Your task to perform on an android device: turn off location Image 0: 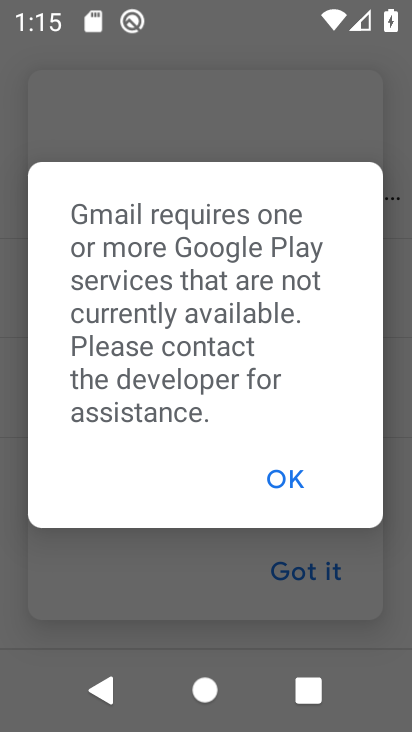
Step 0: press home button
Your task to perform on an android device: turn off location Image 1: 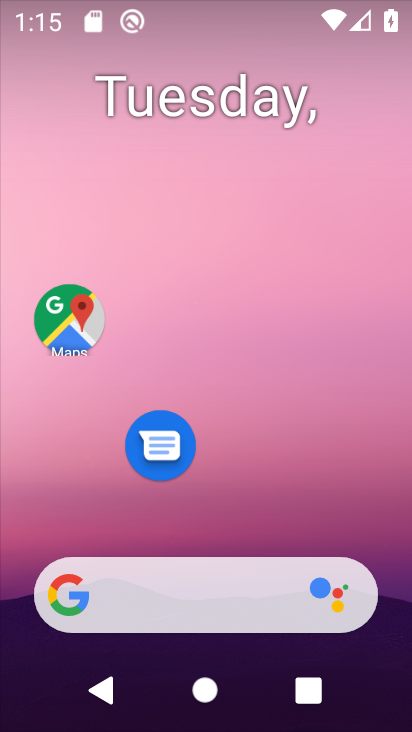
Step 1: drag from (281, 456) to (237, 118)
Your task to perform on an android device: turn off location Image 2: 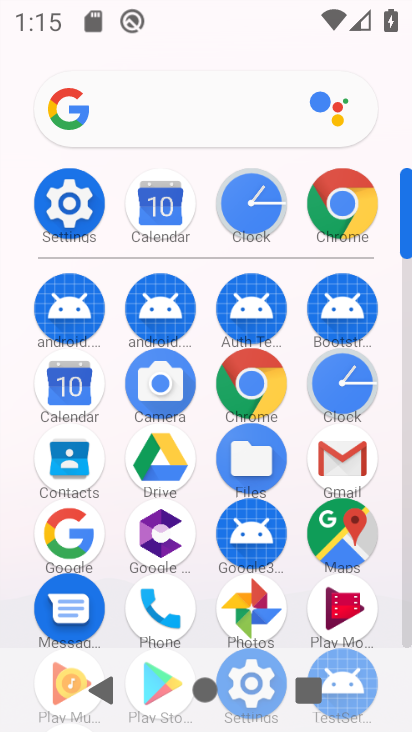
Step 2: click (78, 210)
Your task to perform on an android device: turn off location Image 3: 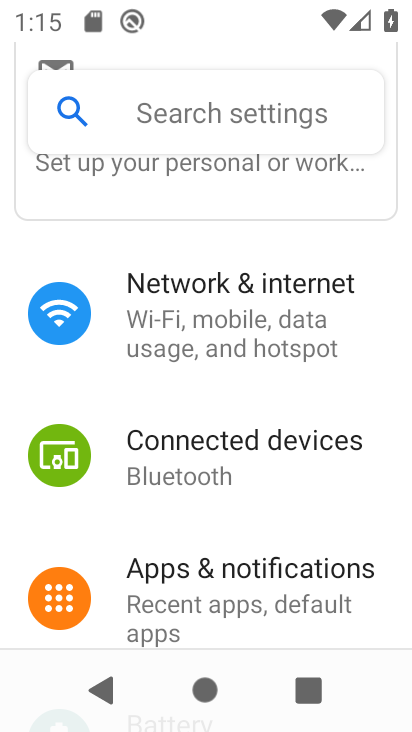
Step 3: drag from (217, 490) to (156, 127)
Your task to perform on an android device: turn off location Image 4: 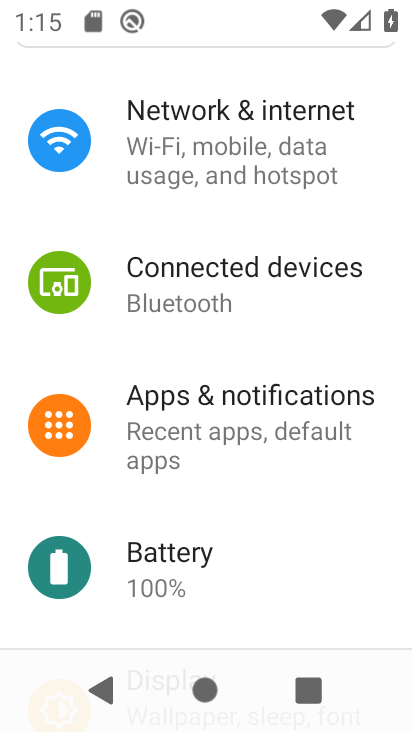
Step 4: drag from (156, 477) to (150, 174)
Your task to perform on an android device: turn off location Image 5: 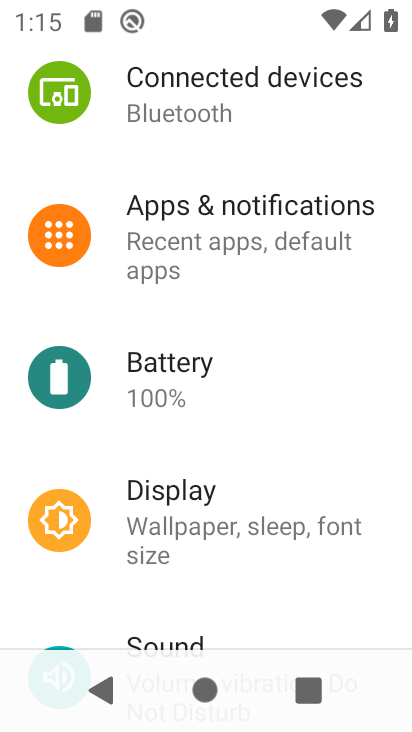
Step 5: drag from (181, 452) to (116, 151)
Your task to perform on an android device: turn off location Image 6: 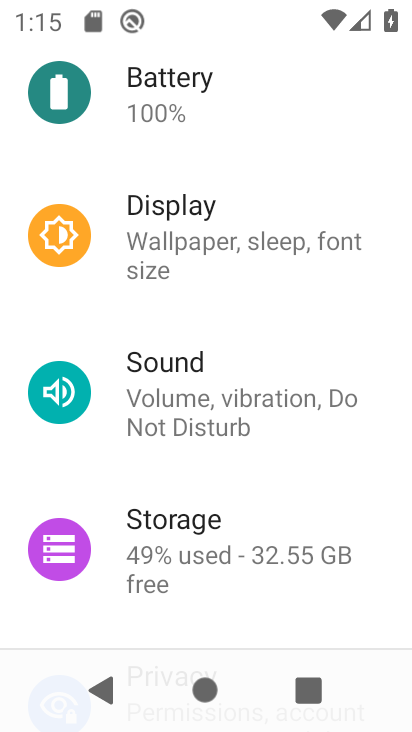
Step 6: drag from (181, 470) to (172, 63)
Your task to perform on an android device: turn off location Image 7: 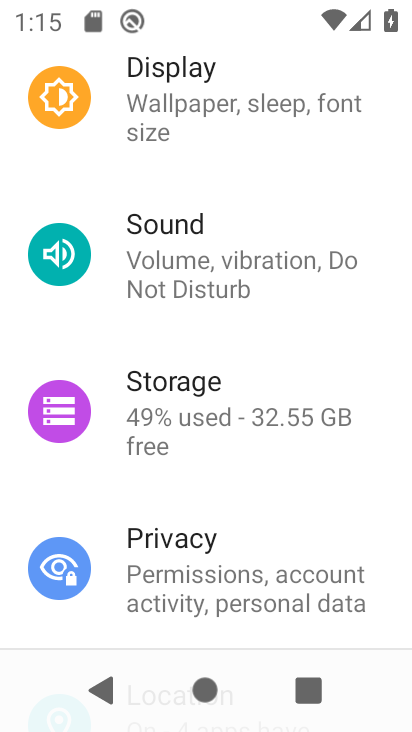
Step 7: drag from (178, 435) to (156, 118)
Your task to perform on an android device: turn off location Image 8: 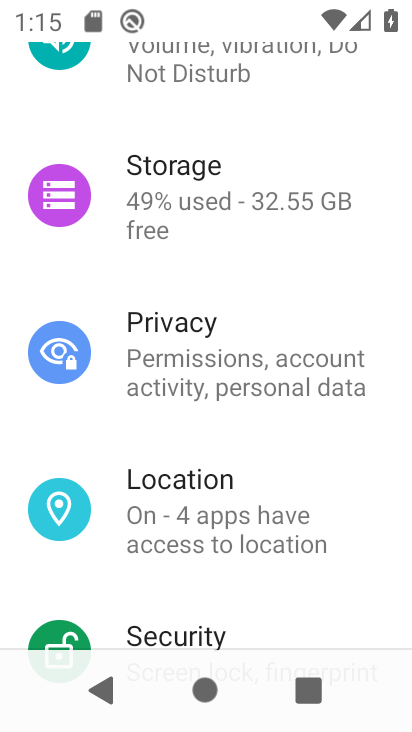
Step 8: click (185, 497)
Your task to perform on an android device: turn off location Image 9: 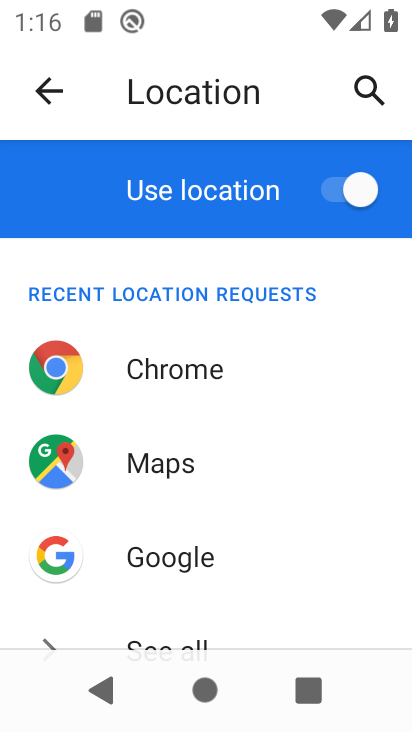
Step 9: click (364, 190)
Your task to perform on an android device: turn off location Image 10: 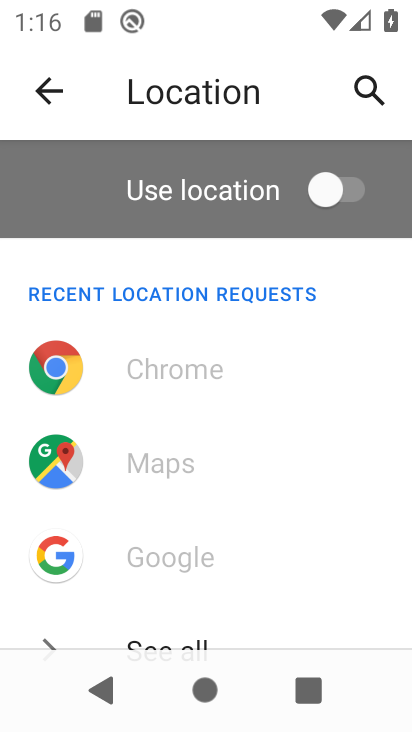
Step 10: task complete